Your task to perform on an android device: turn off airplane mode Image 0: 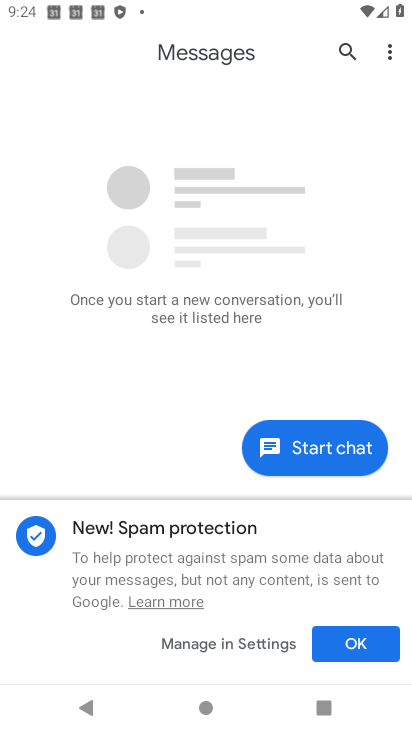
Step 0: press home button
Your task to perform on an android device: turn off airplane mode Image 1: 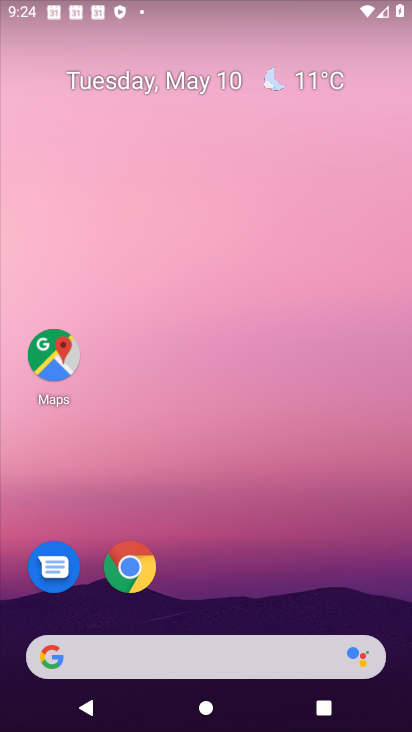
Step 1: drag from (211, 635) to (271, 270)
Your task to perform on an android device: turn off airplane mode Image 2: 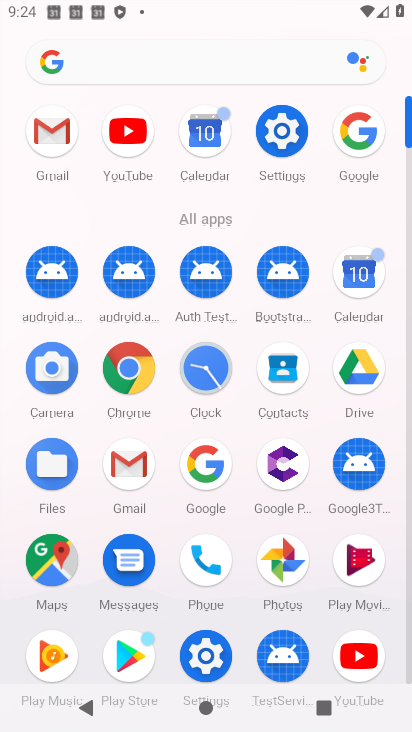
Step 2: click (283, 142)
Your task to perform on an android device: turn off airplane mode Image 3: 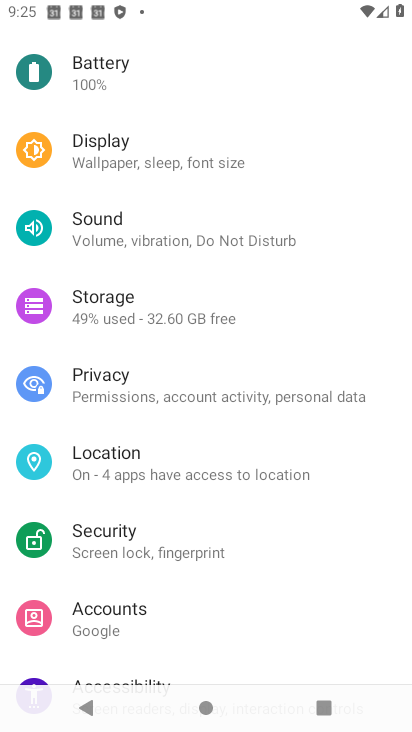
Step 3: drag from (229, 92) to (204, 576)
Your task to perform on an android device: turn off airplane mode Image 4: 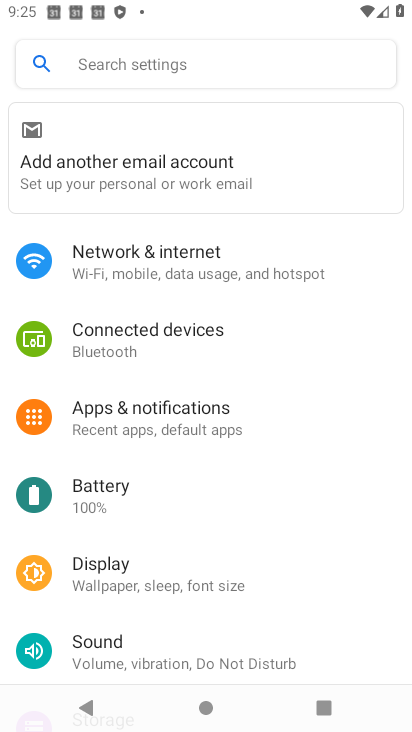
Step 4: click (190, 251)
Your task to perform on an android device: turn off airplane mode Image 5: 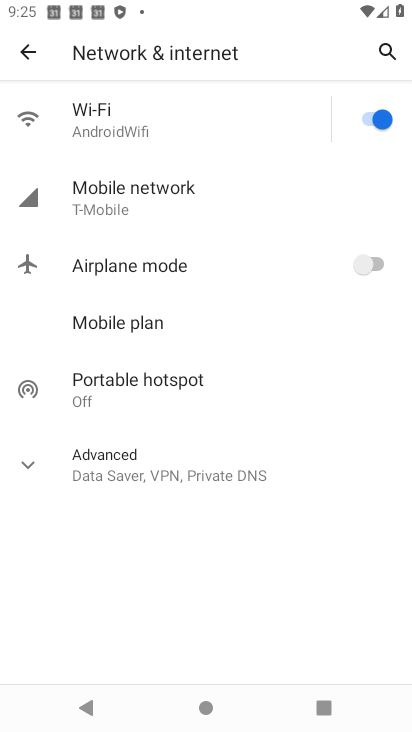
Step 5: task complete